Your task to perform on an android device: find which apps use the phone's location Image 0: 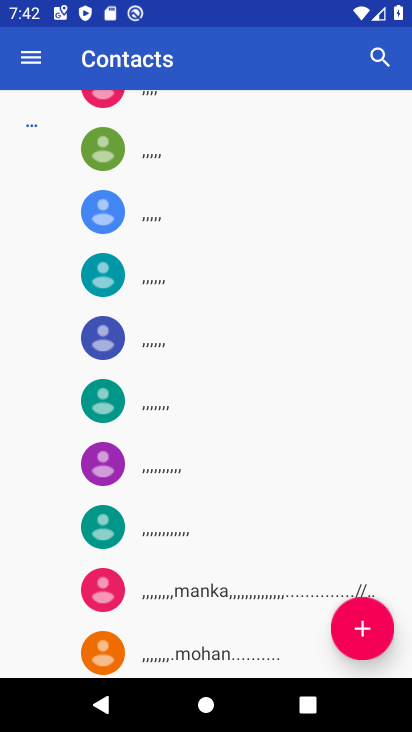
Step 0: press home button
Your task to perform on an android device: find which apps use the phone's location Image 1: 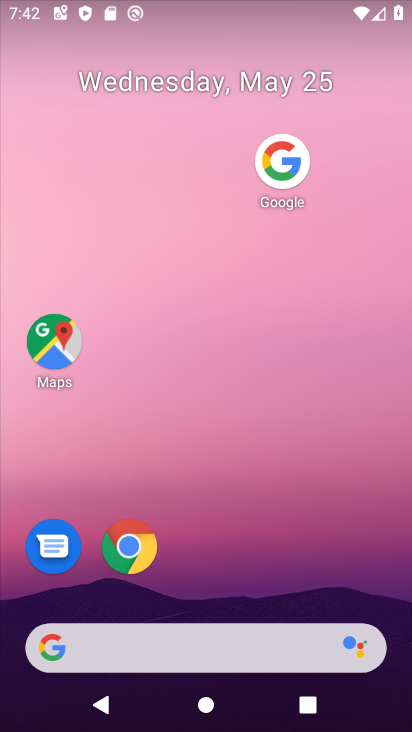
Step 1: drag from (209, 651) to (353, 76)
Your task to perform on an android device: find which apps use the phone's location Image 2: 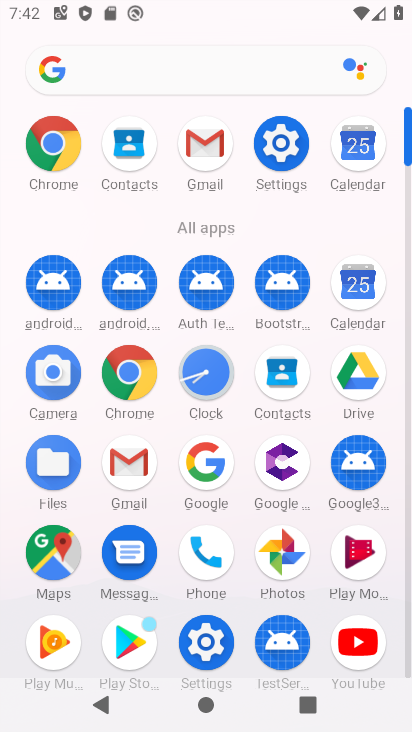
Step 2: click (285, 138)
Your task to perform on an android device: find which apps use the phone's location Image 3: 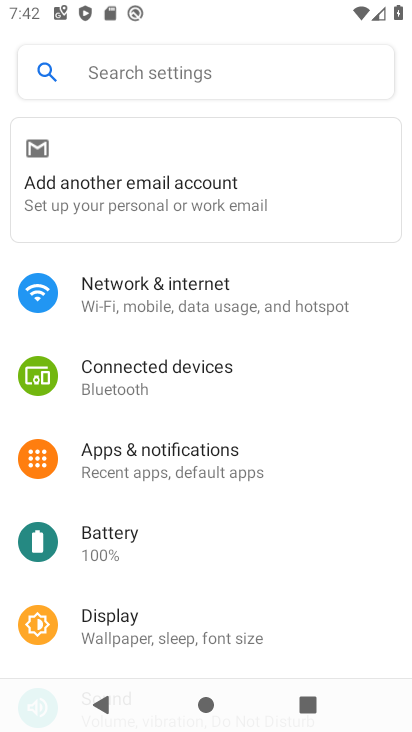
Step 3: drag from (302, 532) to (368, 92)
Your task to perform on an android device: find which apps use the phone's location Image 4: 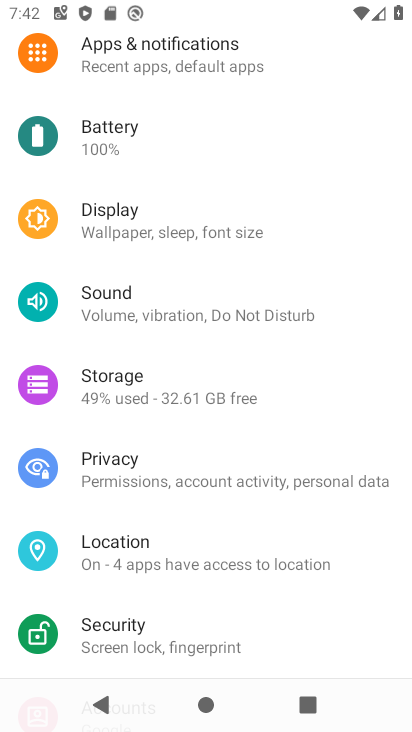
Step 4: click (118, 547)
Your task to perform on an android device: find which apps use the phone's location Image 5: 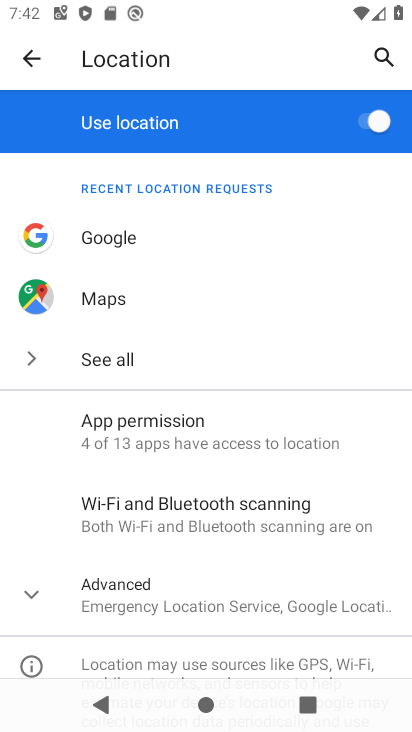
Step 5: click (166, 428)
Your task to perform on an android device: find which apps use the phone's location Image 6: 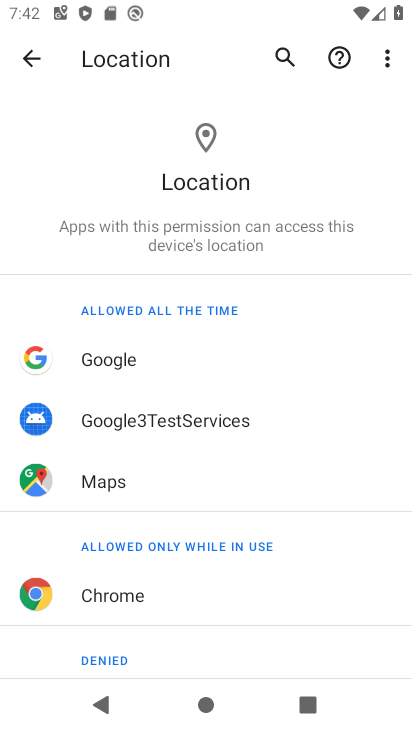
Step 6: drag from (251, 604) to (363, 88)
Your task to perform on an android device: find which apps use the phone's location Image 7: 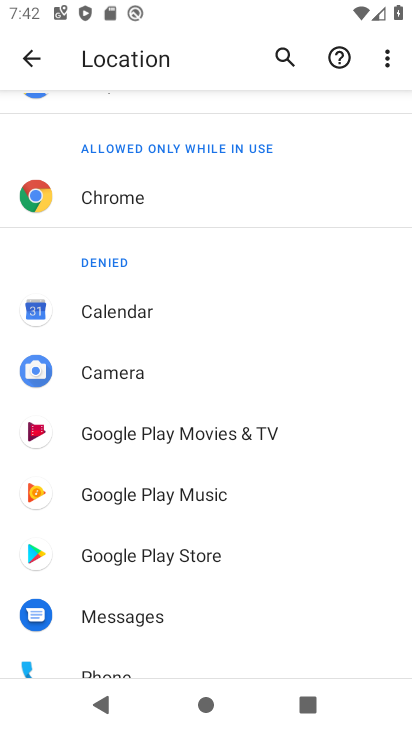
Step 7: drag from (197, 637) to (371, 122)
Your task to perform on an android device: find which apps use the phone's location Image 8: 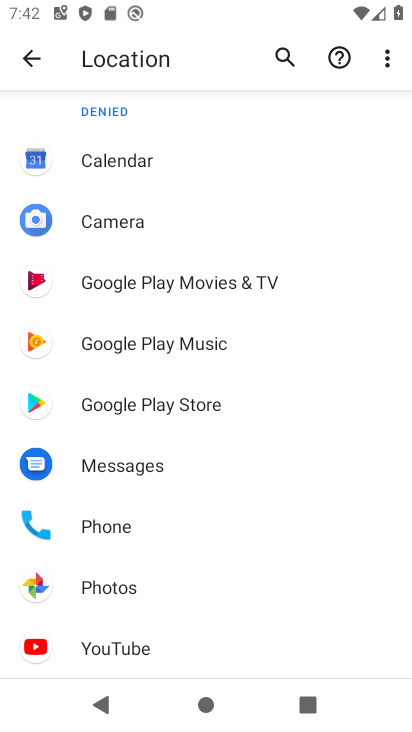
Step 8: click (94, 516)
Your task to perform on an android device: find which apps use the phone's location Image 9: 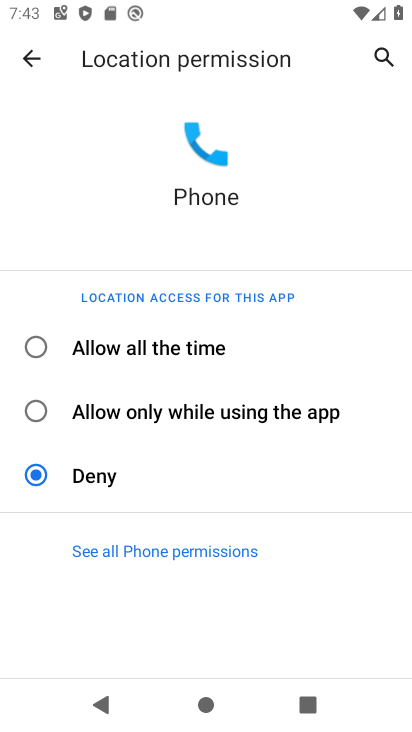
Step 9: task complete